Your task to perform on an android device: Open the web browser Image 0: 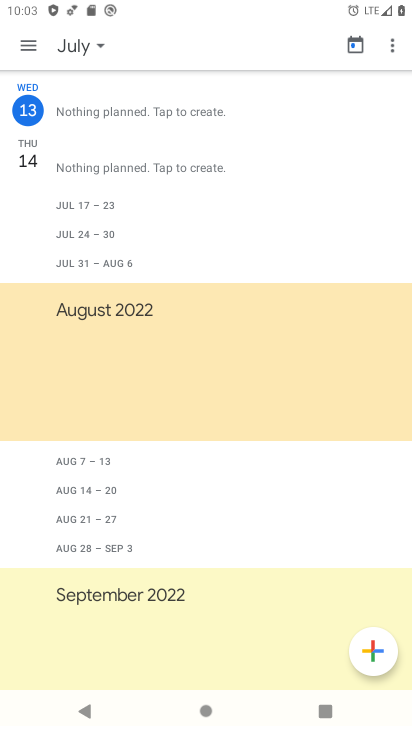
Step 0: press home button
Your task to perform on an android device: Open the web browser Image 1: 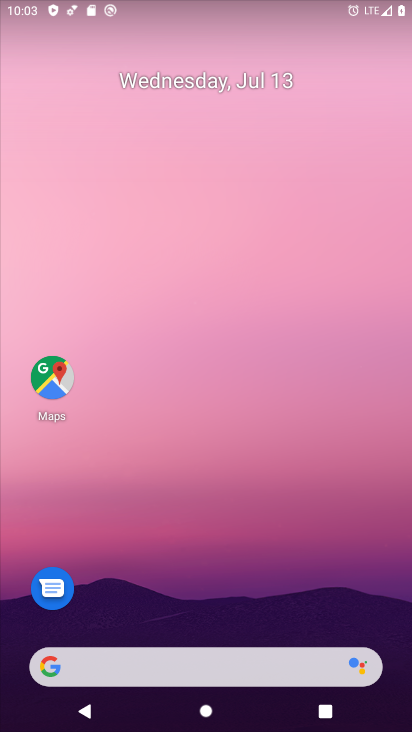
Step 1: drag from (166, 708) to (301, 89)
Your task to perform on an android device: Open the web browser Image 2: 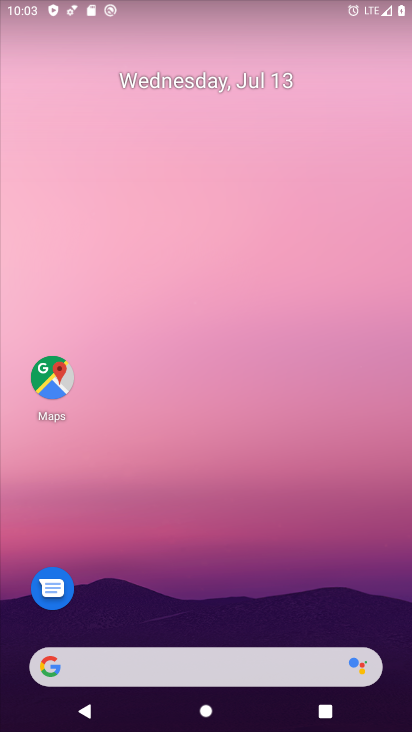
Step 2: drag from (159, 605) to (375, 2)
Your task to perform on an android device: Open the web browser Image 3: 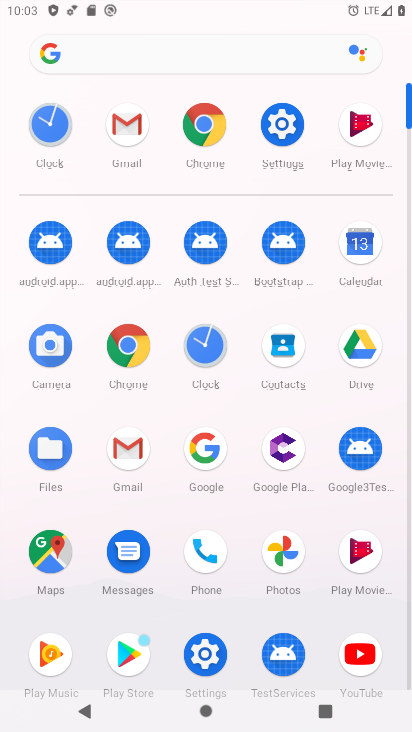
Step 3: click (208, 125)
Your task to perform on an android device: Open the web browser Image 4: 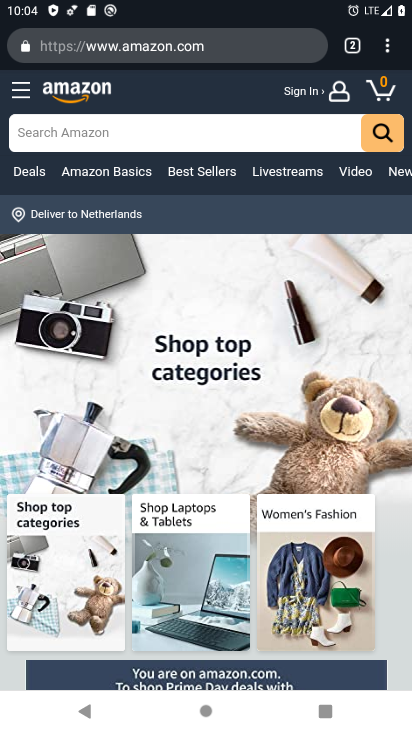
Step 4: task complete